Your task to perform on an android device: check out phone information Image 0: 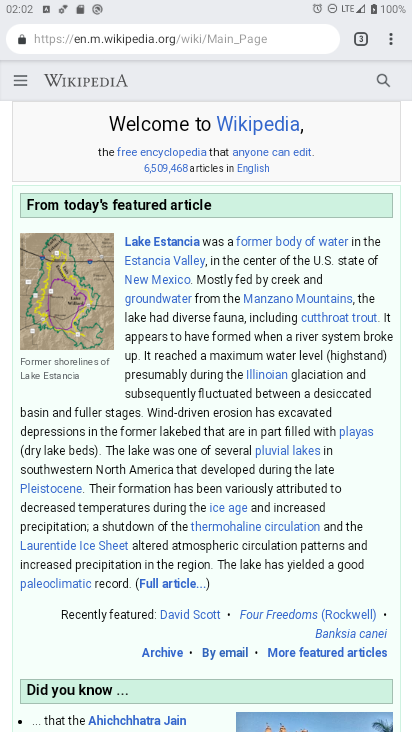
Step 0: press home button
Your task to perform on an android device: check out phone information Image 1: 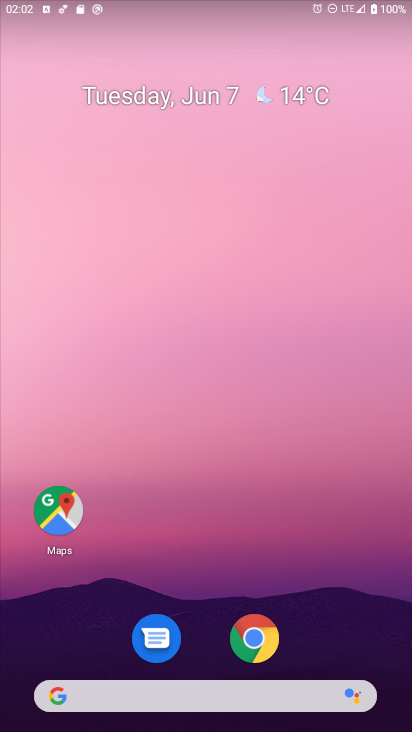
Step 1: drag from (227, 719) to (216, 209)
Your task to perform on an android device: check out phone information Image 2: 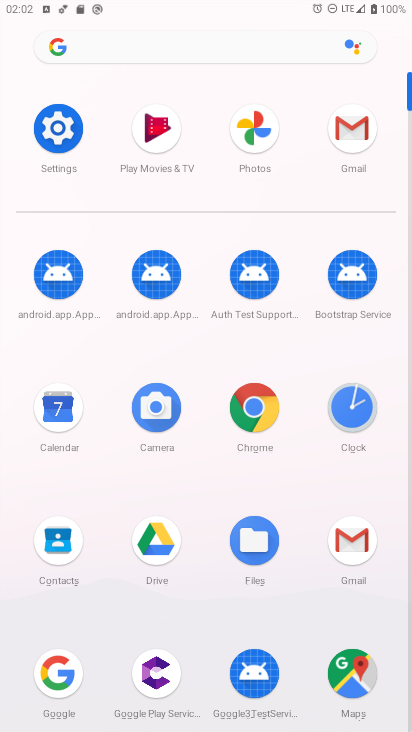
Step 2: click (53, 153)
Your task to perform on an android device: check out phone information Image 3: 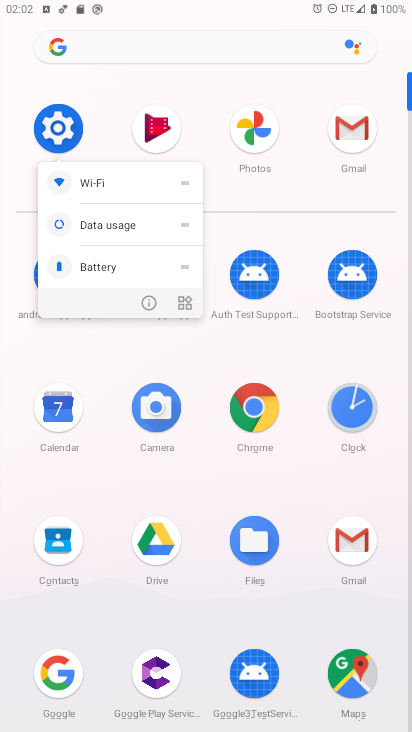
Step 3: click (73, 153)
Your task to perform on an android device: check out phone information Image 4: 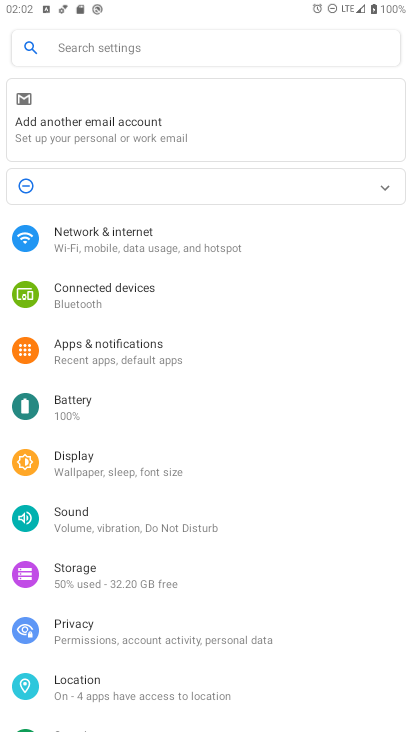
Step 4: click (140, 50)
Your task to perform on an android device: check out phone information Image 5: 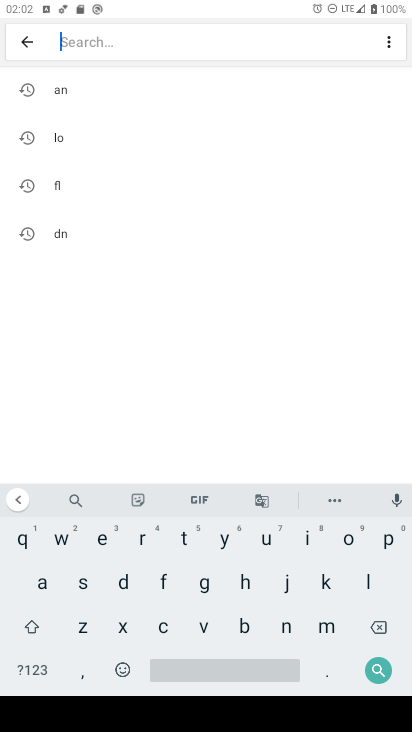
Step 5: click (43, 577)
Your task to perform on an android device: check out phone information Image 6: 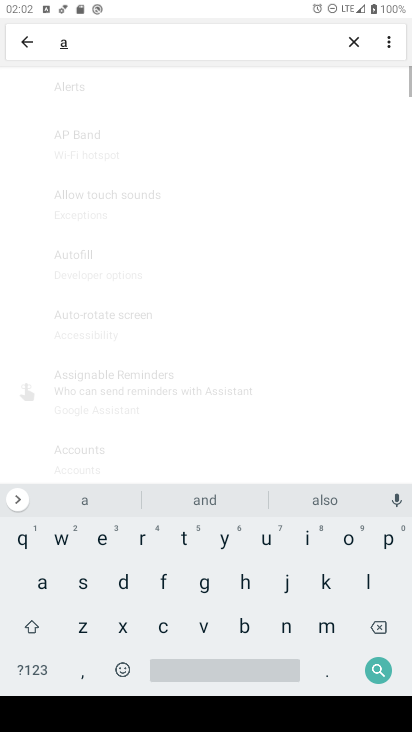
Step 6: click (238, 623)
Your task to perform on an android device: check out phone information Image 7: 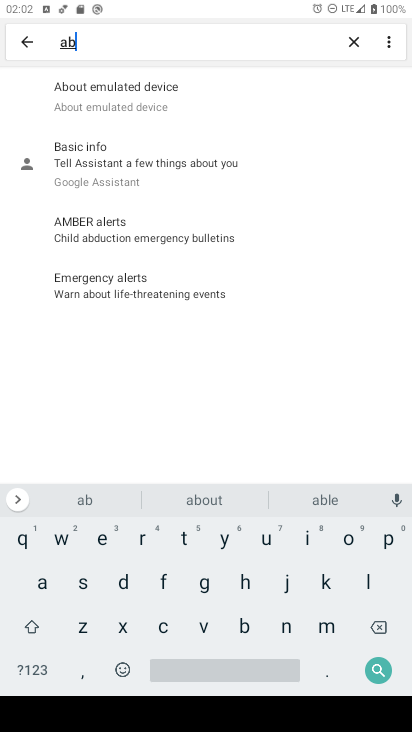
Step 7: click (134, 100)
Your task to perform on an android device: check out phone information Image 8: 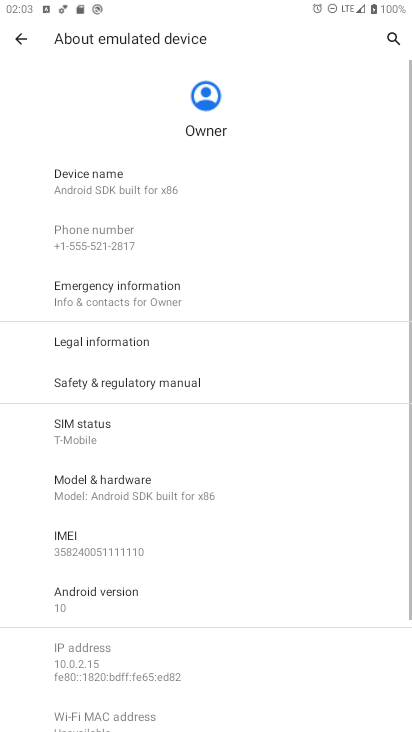
Step 8: task complete